Your task to perform on an android device: Open wifi settings Image 0: 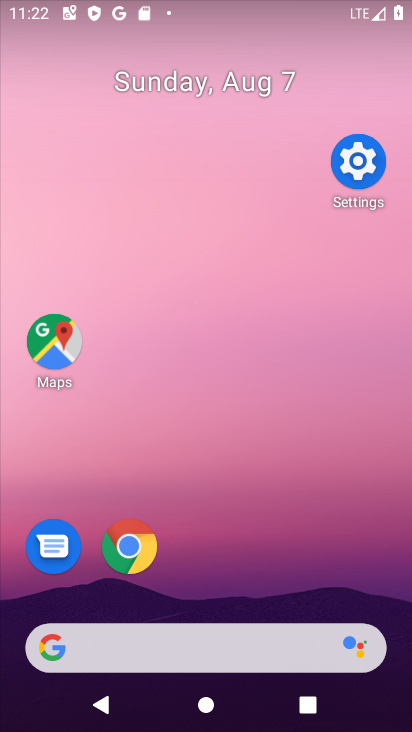
Step 0: drag from (257, 591) to (260, 270)
Your task to perform on an android device: Open wifi settings Image 1: 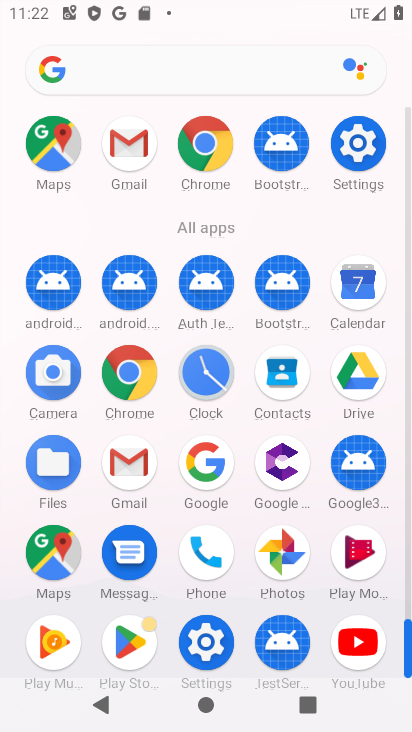
Step 1: click (358, 139)
Your task to perform on an android device: Open wifi settings Image 2: 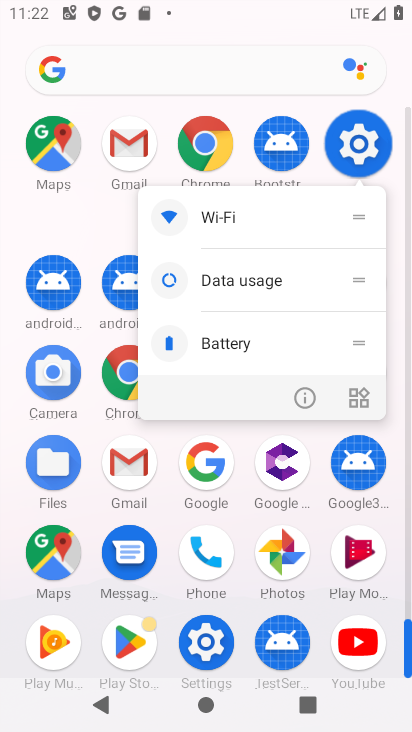
Step 2: click (359, 140)
Your task to perform on an android device: Open wifi settings Image 3: 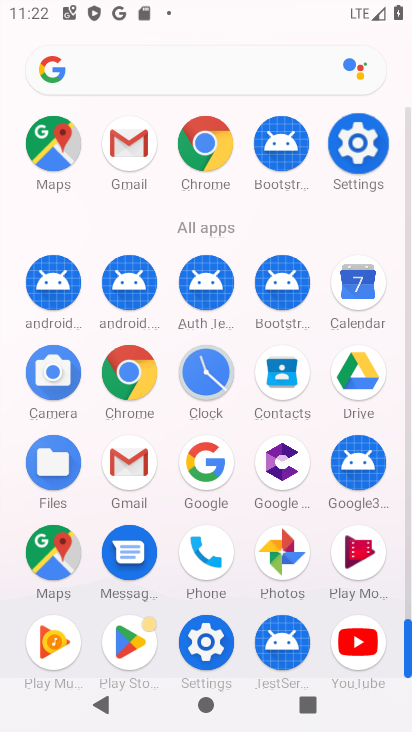
Step 3: click (360, 141)
Your task to perform on an android device: Open wifi settings Image 4: 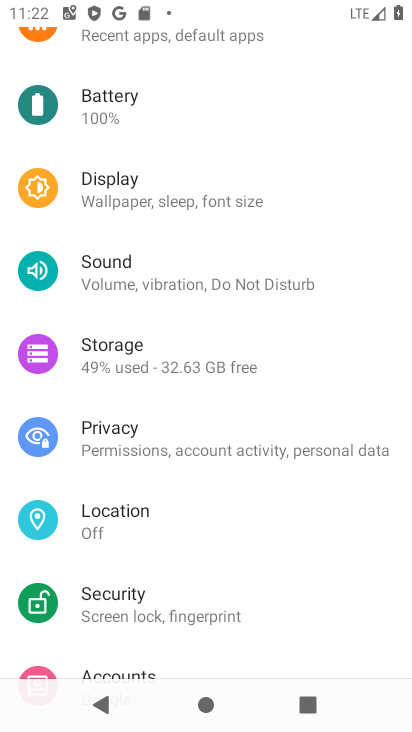
Step 4: click (362, 142)
Your task to perform on an android device: Open wifi settings Image 5: 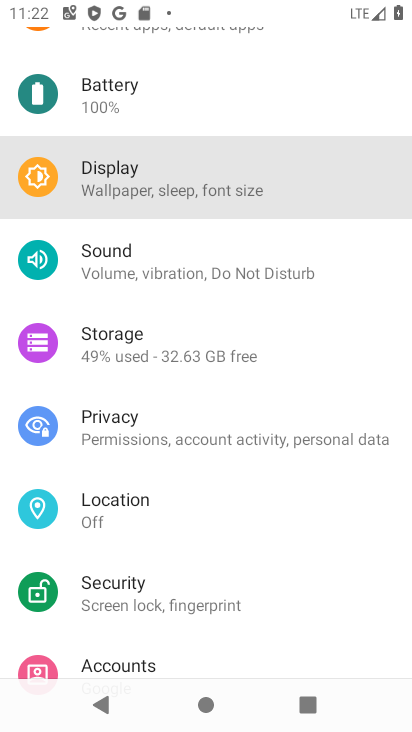
Step 5: click (363, 138)
Your task to perform on an android device: Open wifi settings Image 6: 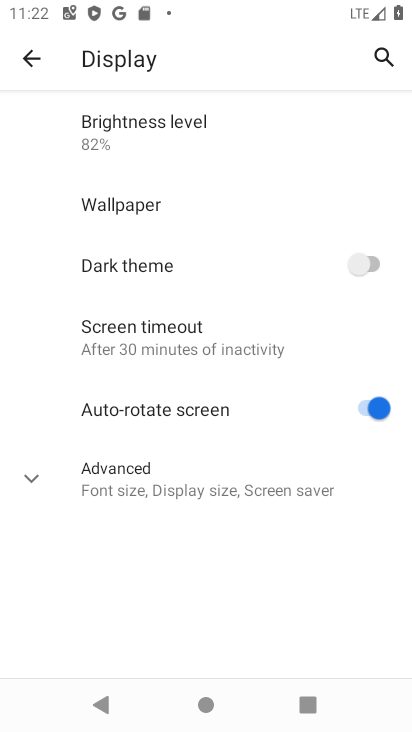
Step 6: click (39, 56)
Your task to perform on an android device: Open wifi settings Image 7: 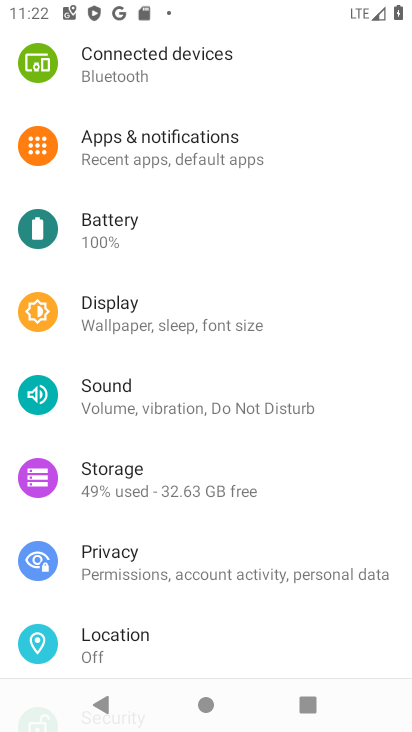
Step 7: drag from (247, 338) to (189, 571)
Your task to perform on an android device: Open wifi settings Image 8: 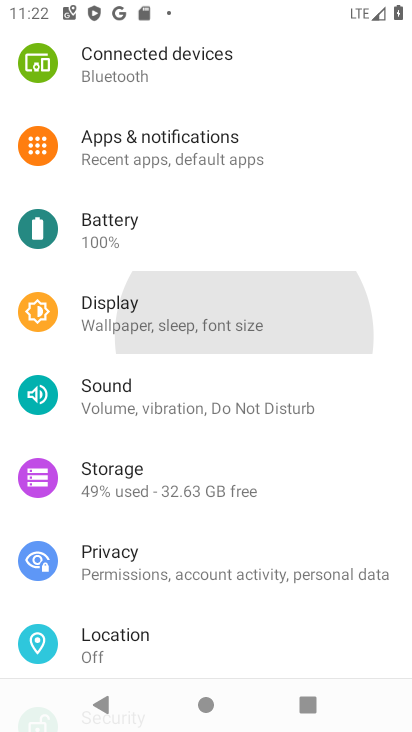
Step 8: drag from (180, 219) to (191, 516)
Your task to perform on an android device: Open wifi settings Image 9: 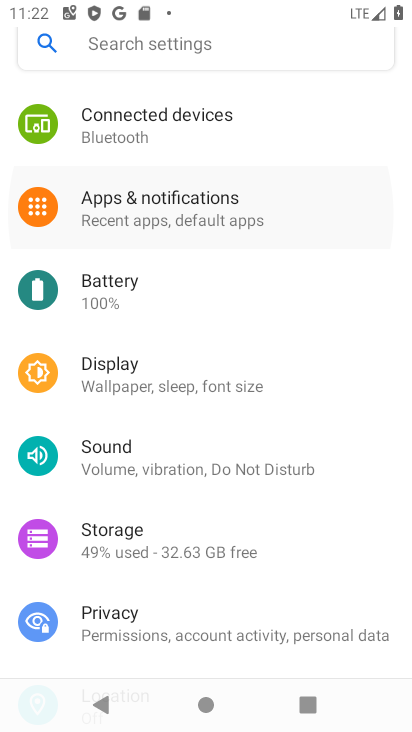
Step 9: drag from (248, 384) to (220, 553)
Your task to perform on an android device: Open wifi settings Image 10: 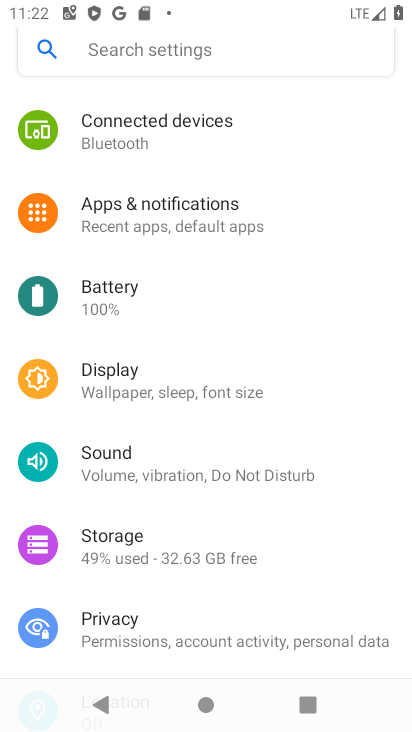
Step 10: click (200, 573)
Your task to perform on an android device: Open wifi settings Image 11: 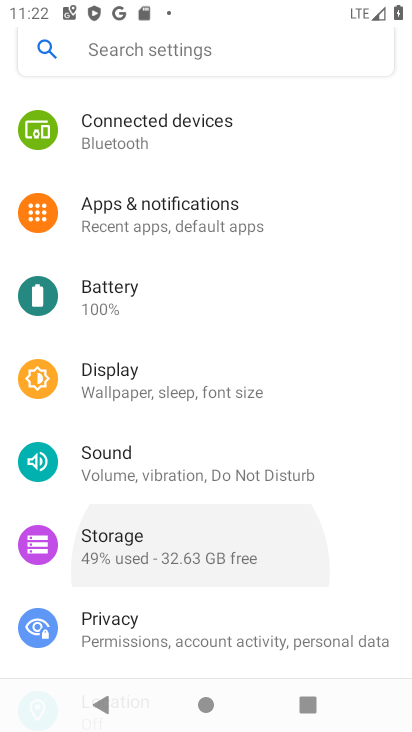
Step 11: drag from (193, 399) to (160, 585)
Your task to perform on an android device: Open wifi settings Image 12: 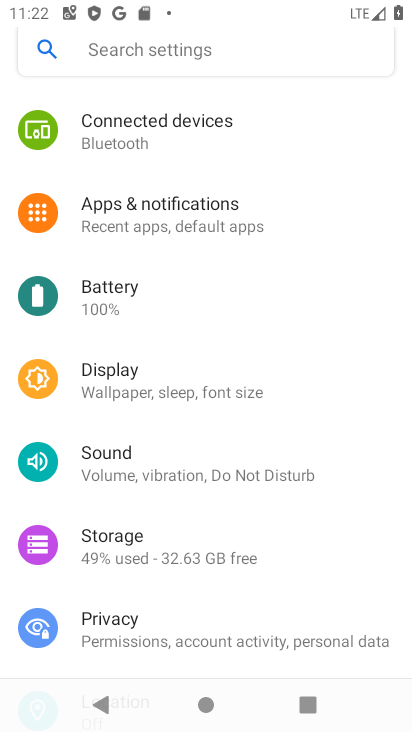
Step 12: drag from (161, 208) to (138, 560)
Your task to perform on an android device: Open wifi settings Image 13: 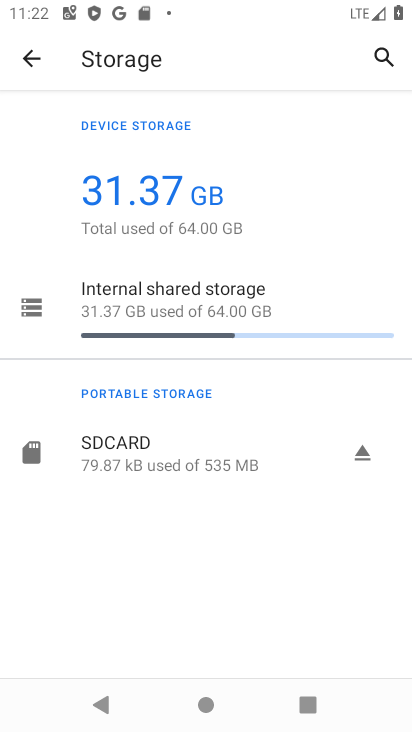
Step 13: drag from (240, 542) to (224, 602)
Your task to perform on an android device: Open wifi settings Image 14: 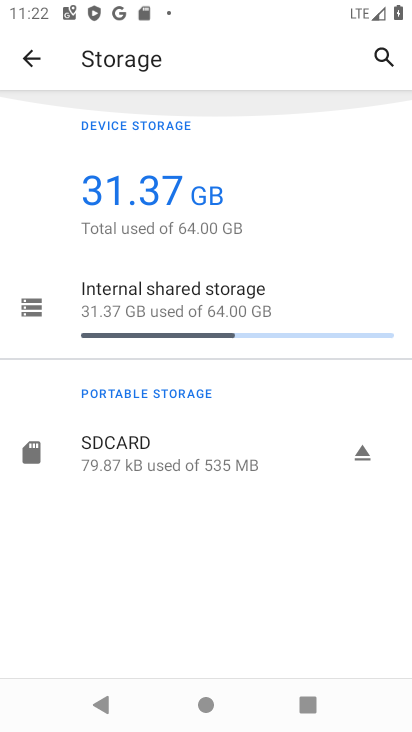
Step 14: drag from (204, 352) to (167, 605)
Your task to perform on an android device: Open wifi settings Image 15: 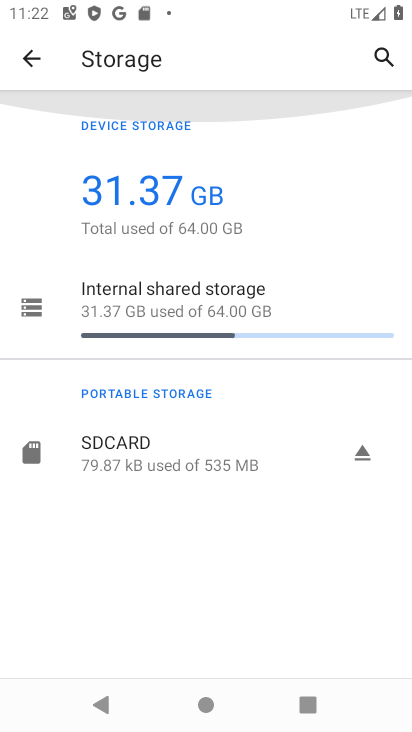
Step 15: drag from (192, 659) to (186, 587)
Your task to perform on an android device: Open wifi settings Image 16: 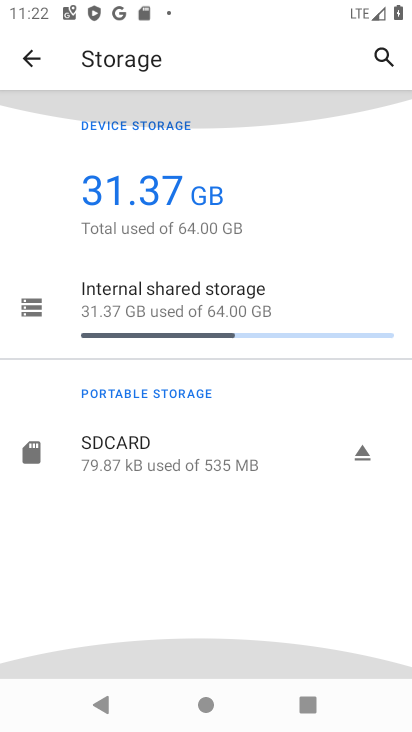
Step 16: drag from (190, 301) to (161, 652)
Your task to perform on an android device: Open wifi settings Image 17: 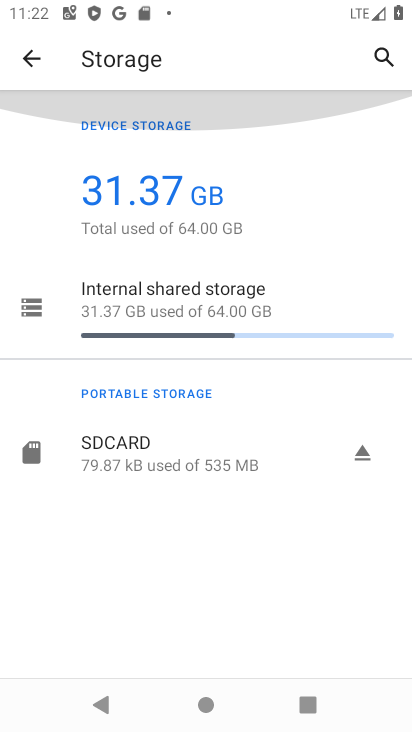
Step 17: drag from (151, 533) to (138, 600)
Your task to perform on an android device: Open wifi settings Image 18: 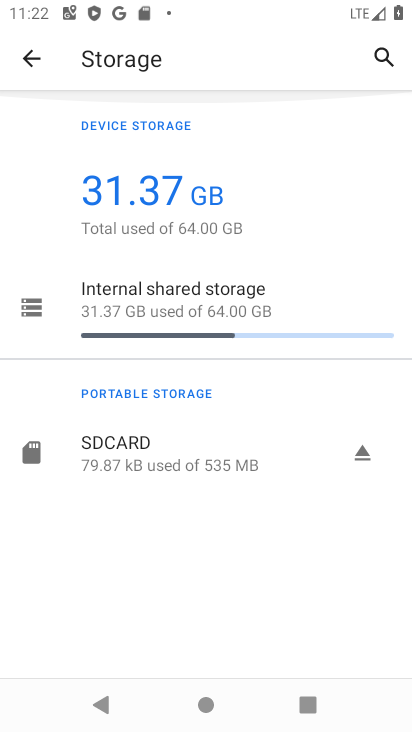
Step 18: drag from (157, 520) to (112, 673)
Your task to perform on an android device: Open wifi settings Image 19: 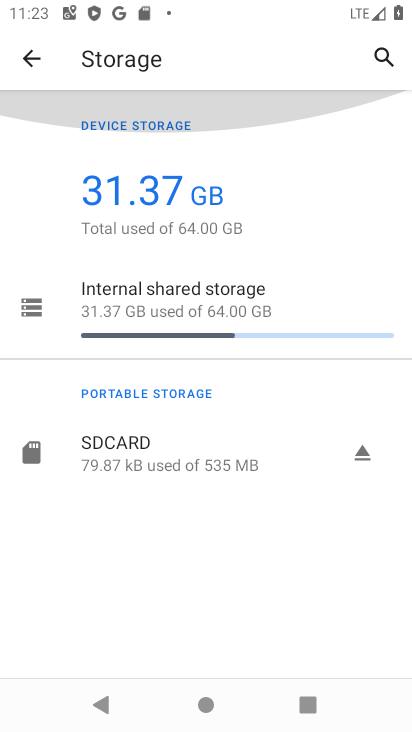
Step 19: drag from (157, 403) to (159, 729)
Your task to perform on an android device: Open wifi settings Image 20: 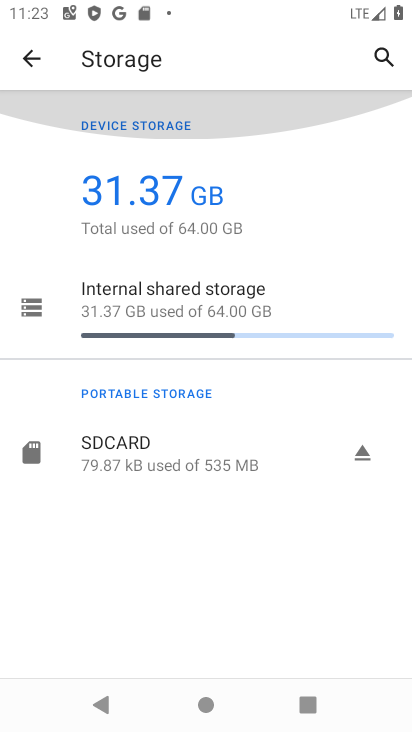
Step 20: drag from (152, 513) to (134, 708)
Your task to perform on an android device: Open wifi settings Image 21: 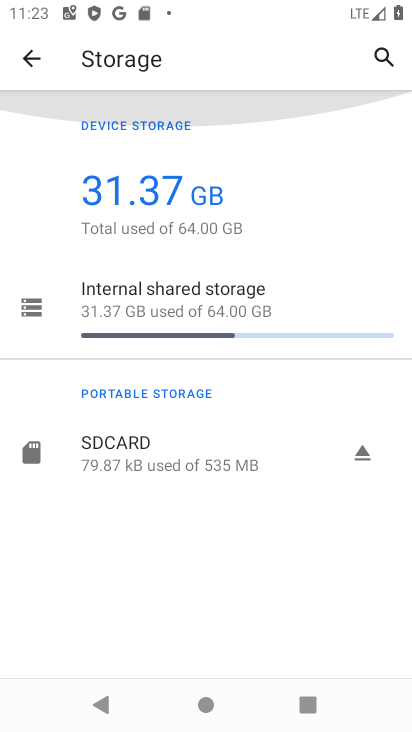
Step 21: drag from (169, 321) to (128, 499)
Your task to perform on an android device: Open wifi settings Image 22: 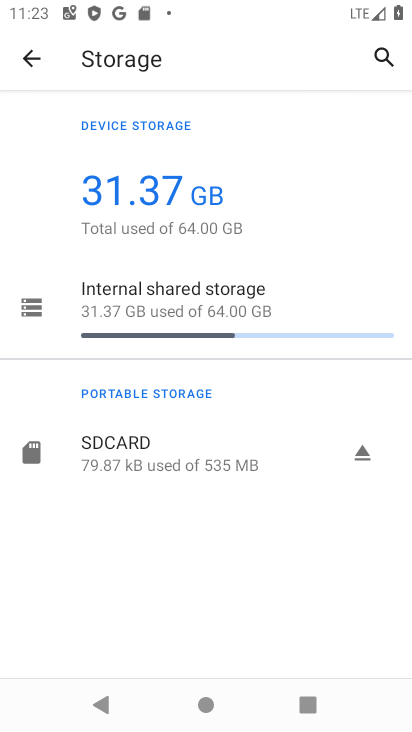
Step 22: drag from (187, 213) to (145, 500)
Your task to perform on an android device: Open wifi settings Image 23: 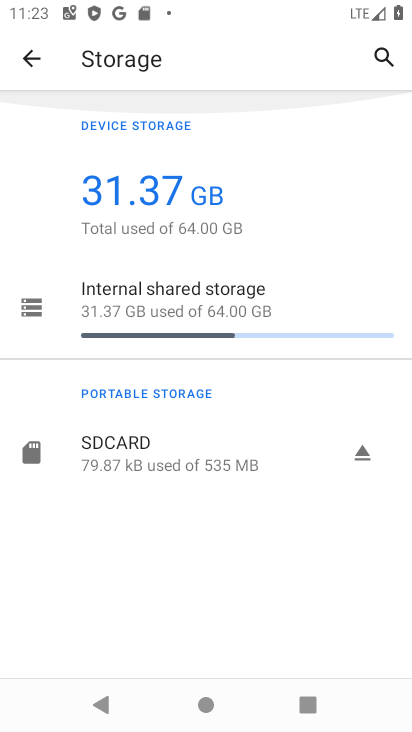
Step 23: drag from (140, 323) to (140, 505)
Your task to perform on an android device: Open wifi settings Image 24: 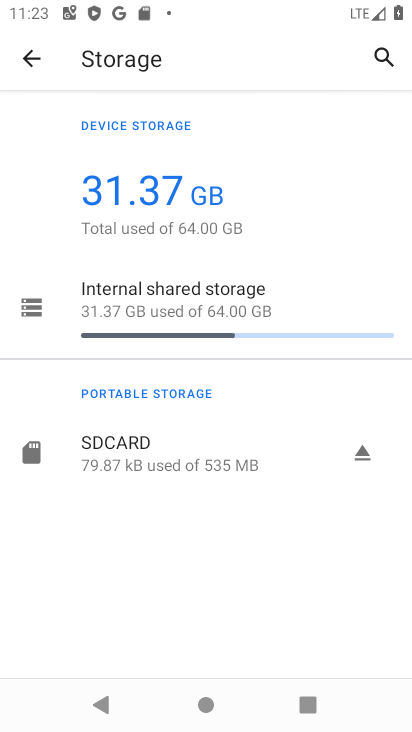
Step 24: drag from (89, 285) to (89, 554)
Your task to perform on an android device: Open wifi settings Image 25: 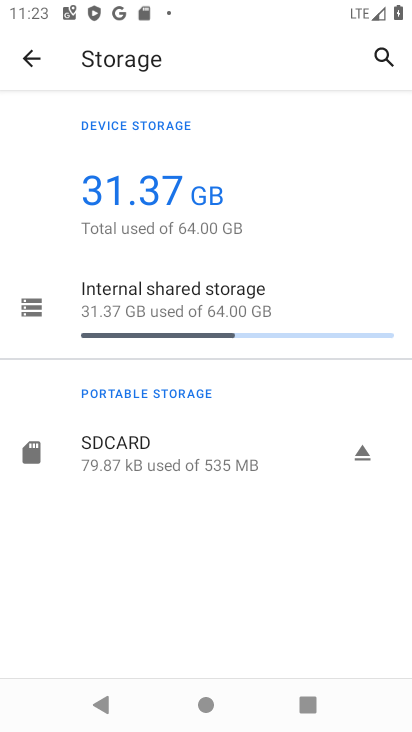
Step 25: click (29, 51)
Your task to perform on an android device: Open wifi settings Image 26: 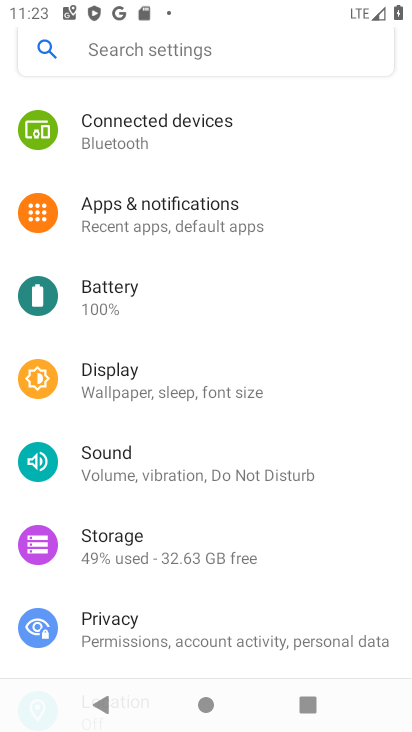
Step 26: drag from (167, 160) to (167, 494)
Your task to perform on an android device: Open wifi settings Image 27: 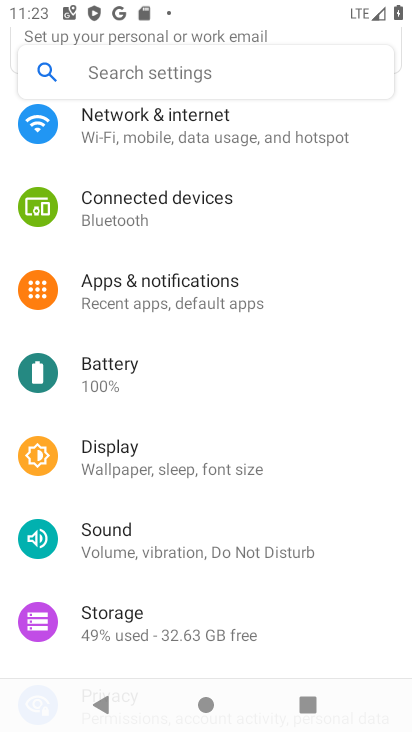
Step 27: drag from (165, 216) to (168, 525)
Your task to perform on an android device: Open wifi settings Image 28: 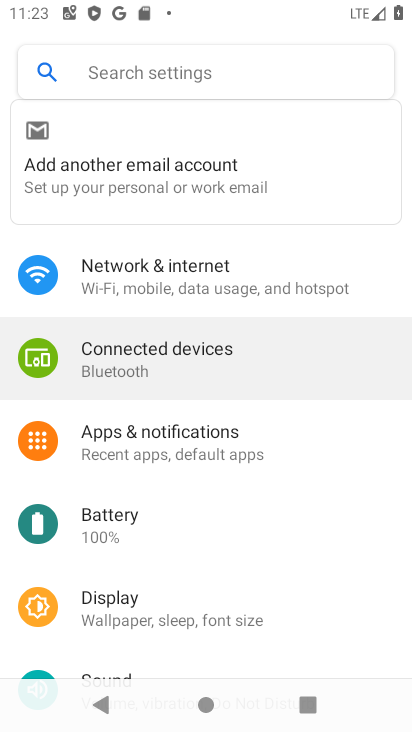
Step 28: drag from (211, 264) to (202, 492)
Your task to perform on an android device: Open wifi settings Image 29: 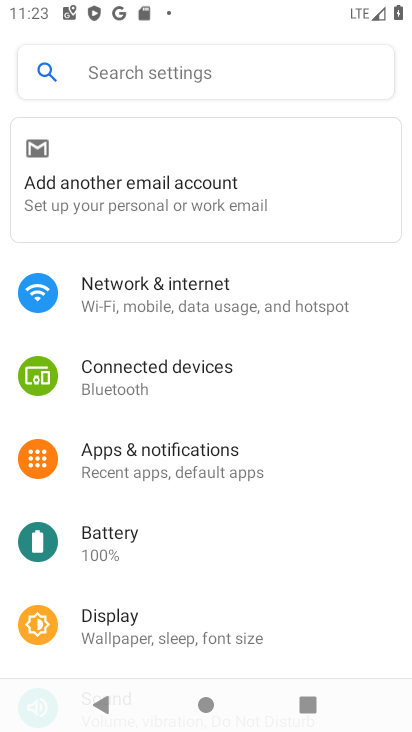
Step 29: click (170, 303)
Your task to perform on an android device: Open wifi settings Image 30: 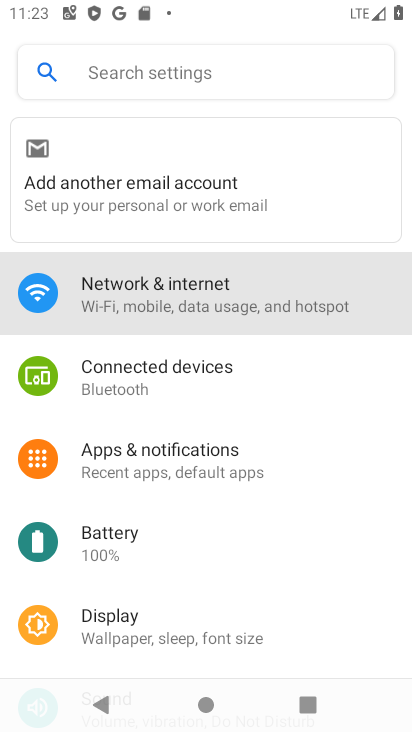
Step 30: click (175, 303)
Your task to perform on an android device: Open wifi settings Image 31: 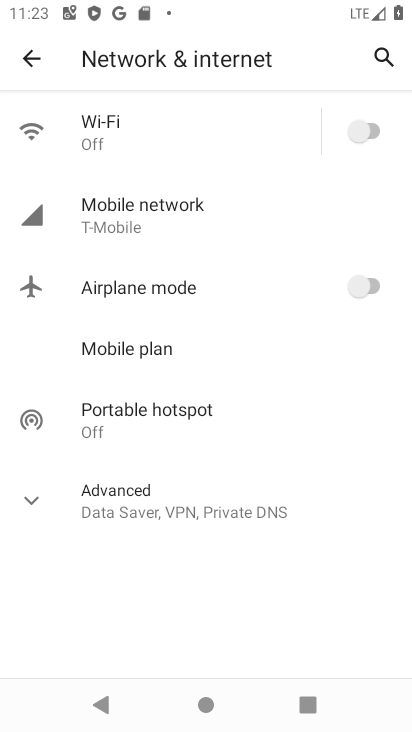
Step 31: click (360, 137)
Your task to perform on an android device: Open wifi settings Image 32: 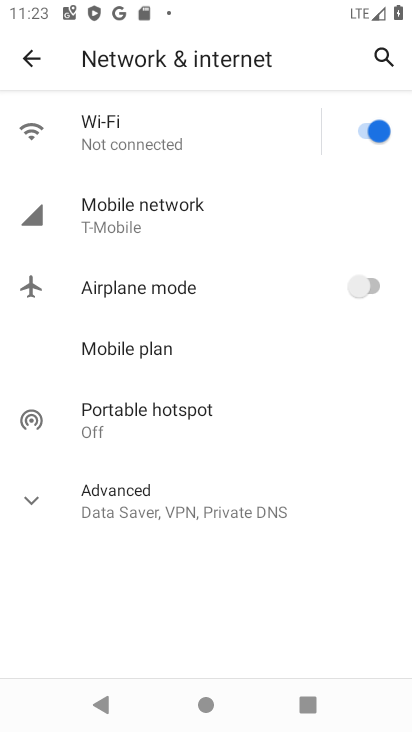
Step 32: task complete